Your task to perform on an android device: open app "Pinterest" (install if not already installed), go to login, and select forgot password Image 0: 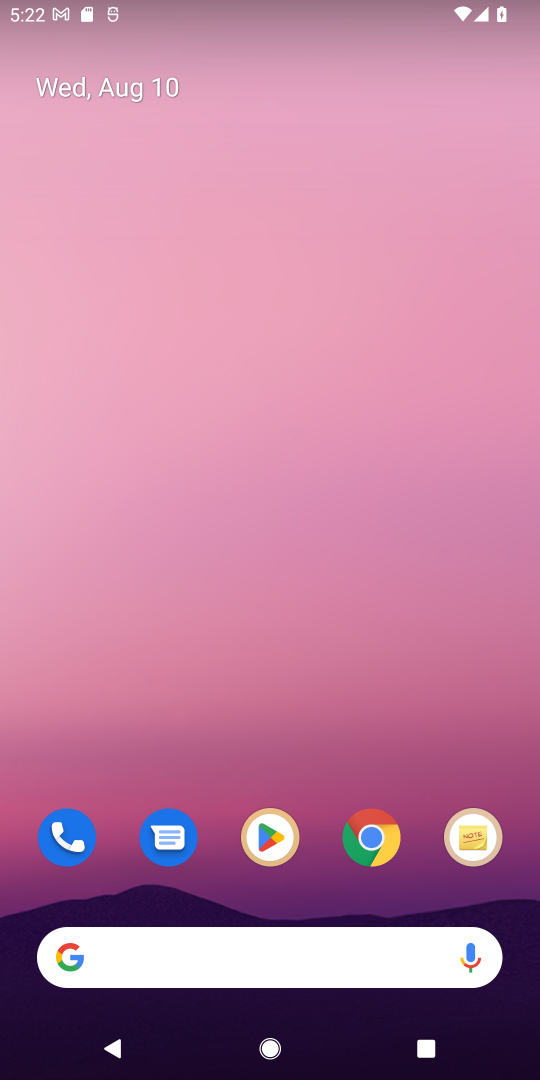
Step 0: click (275, 832)
Your task to perform on an android device: open app "Pinterest" (install if not already installed), go to login, and select forgot password Image 1: 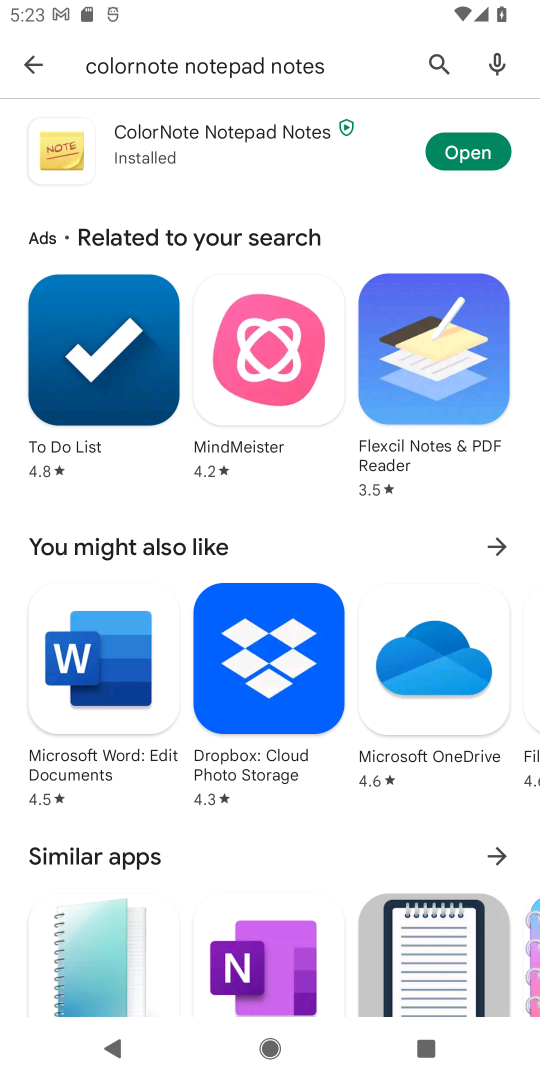
Step 1: click (440, 67)
Your task to perform on an android device: open app "Pinterest" (install if not already installed), go to login, and select forgot password Image 2: 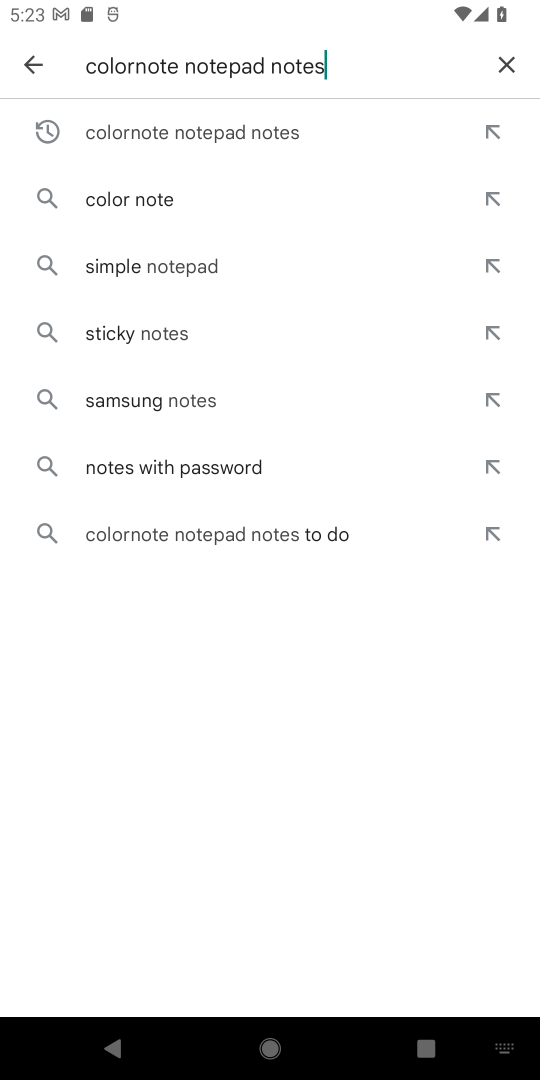
Step 2: click (508, 56)
Your task to perform on an android device: open app "Pinterest" (install if not already installed), go to login, and select forgot password Image 3: 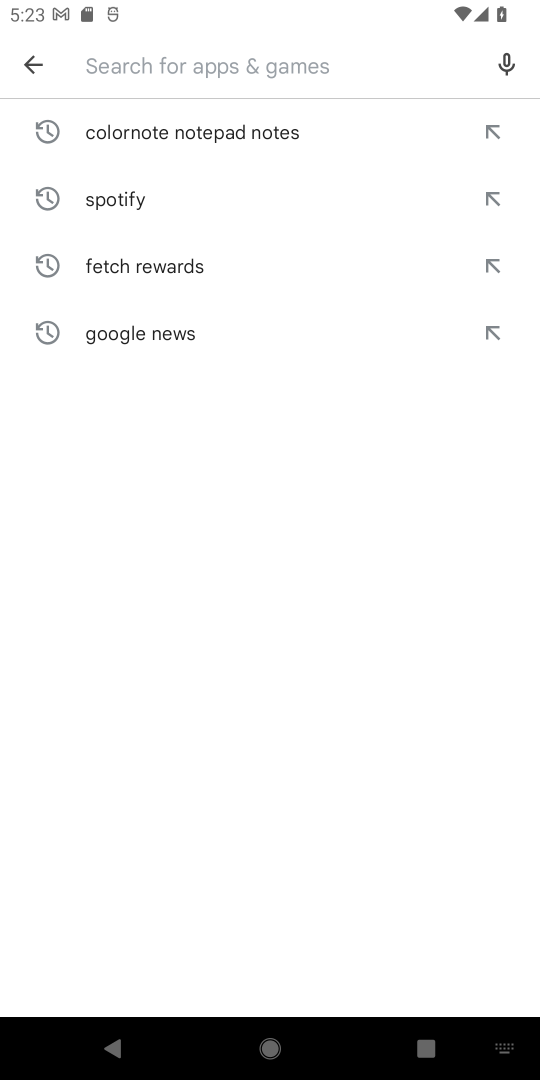
Step 3: type "Pinterest"
Your task to perform on an android device: open app "Pinterest" (install if not already installed), go to login, and select forgot password Image 4: 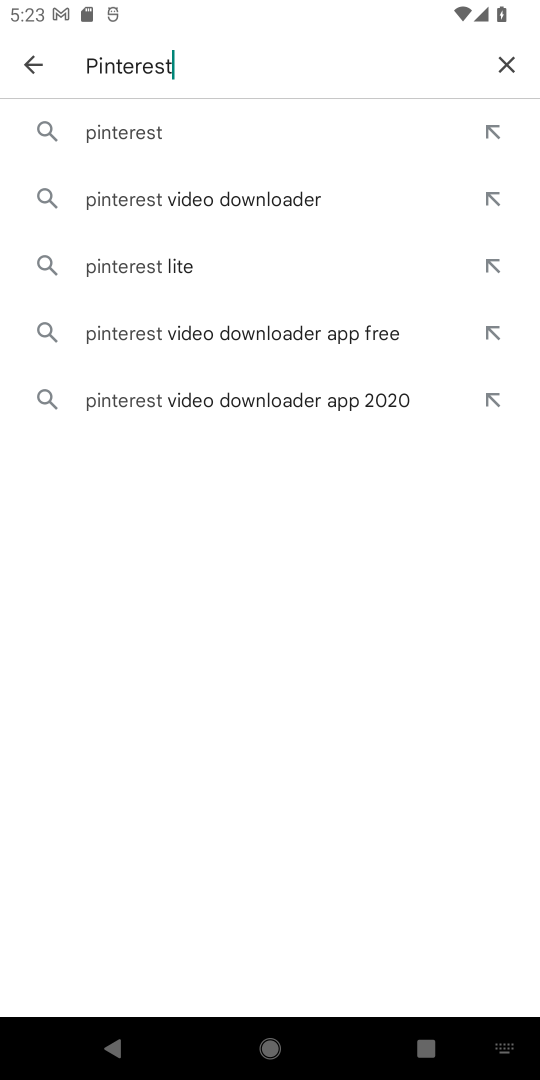
Step 4: click (108, 128)
Your task to perform on an android device: open app "Pinterest" (install if not already installed), go to login, and select forgot password Image 5: 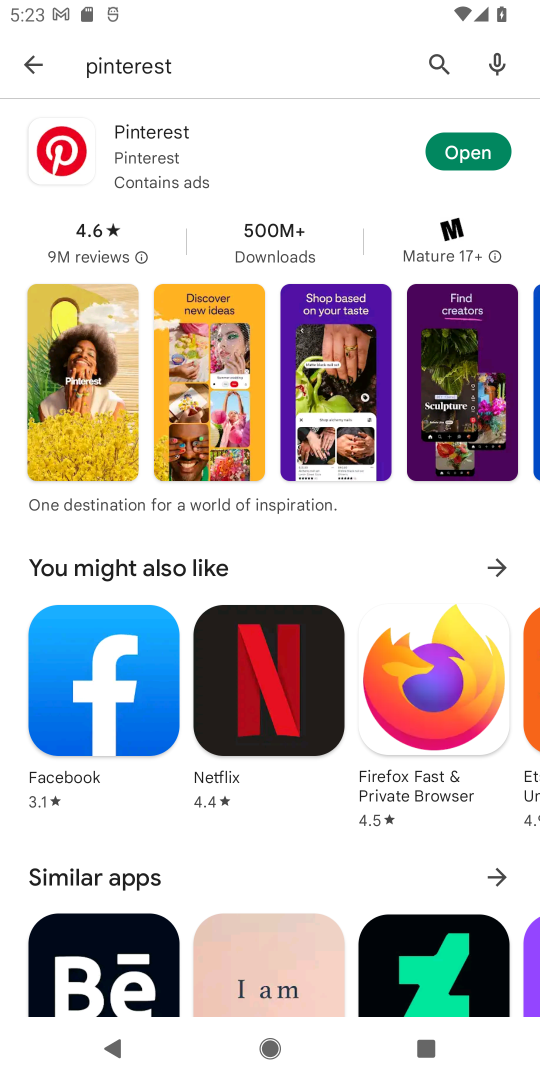
Step 5: click (468, 153)
Your task to perform on an android device: open app "Pinterest" (install if not already installed), go to login, and select forgot password Image 6: 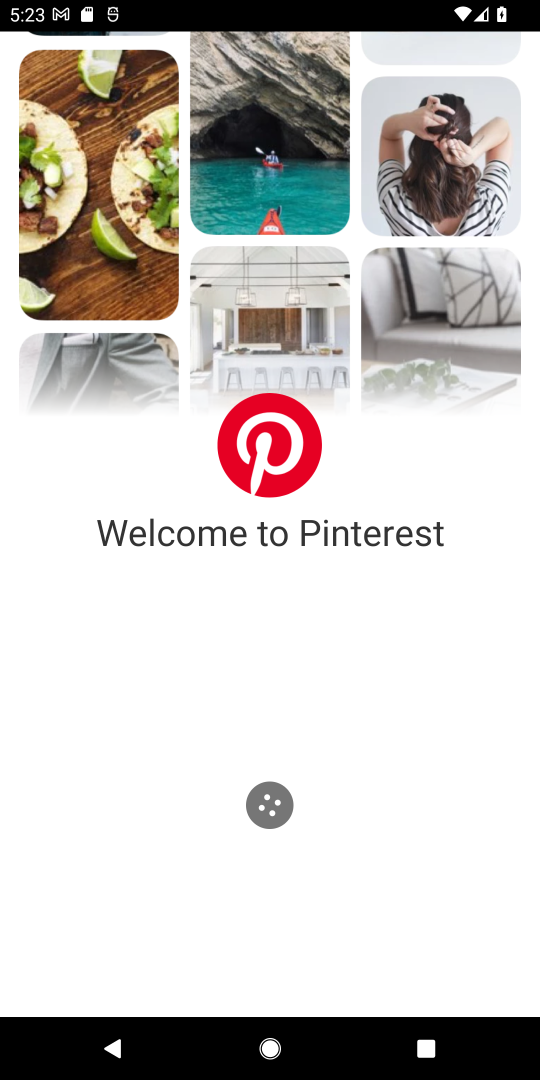
Step 6: task complete